Your task to perform on an android device: see sites visited before in the chrome app Image 0: 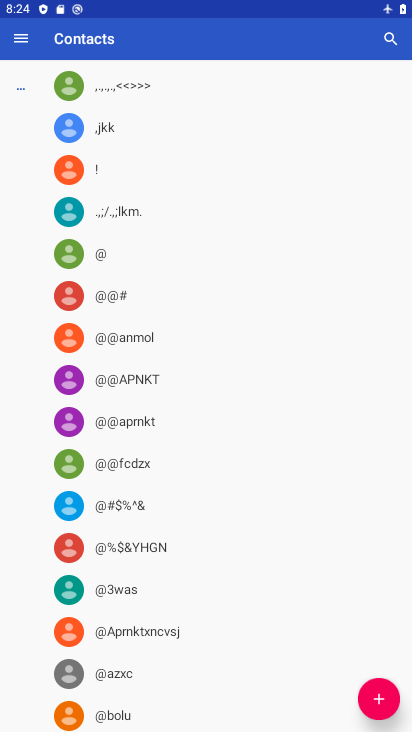
Step 0: press back button
Your task to perform on an android device: see sites visited before in the chrome app Image 1: 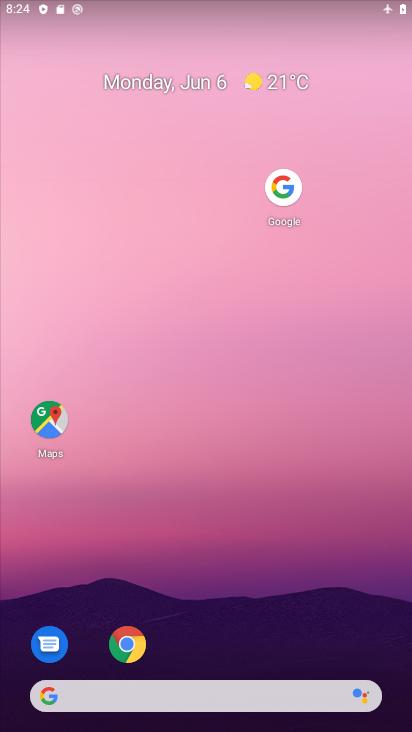
Step 1: click (133, 642)
Your task to perform on an android device: see sites visited before in the chrome app Image 2: 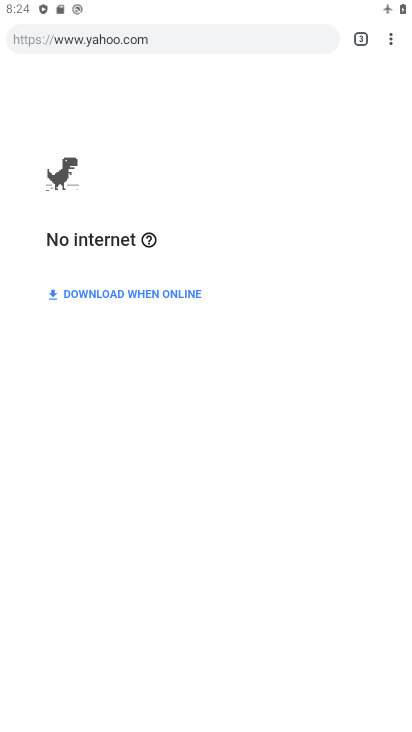
Step 2: click (364, 43)
Your task to perform on an android device: see sites visited before in the chrome app Image 3: 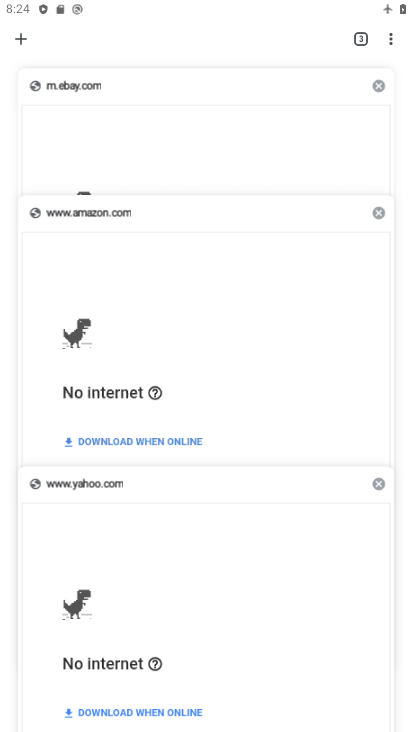
Step 3: task complete